Your task to perform on an android device: change timer sound Image 0: 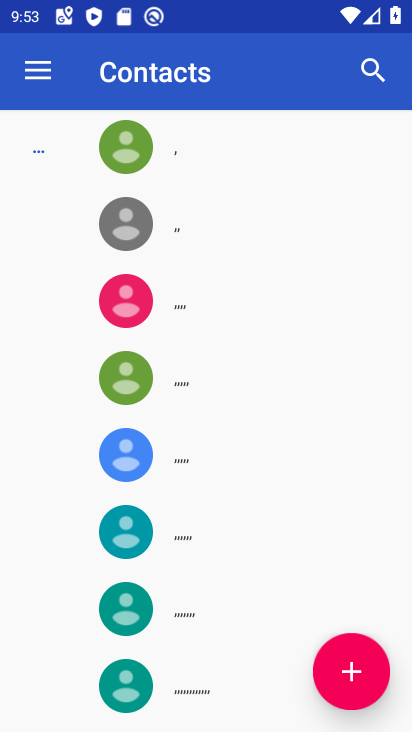
Step 0: press home button
Your task to perform on an android device: change timer sound Image 1: 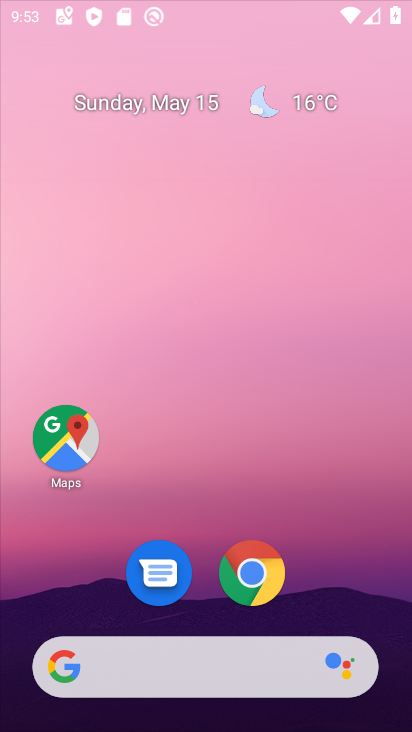
Step 1: drag from (314, 540) to (301, 44)
Your task to perform on an android device: change timer sound Image 2: 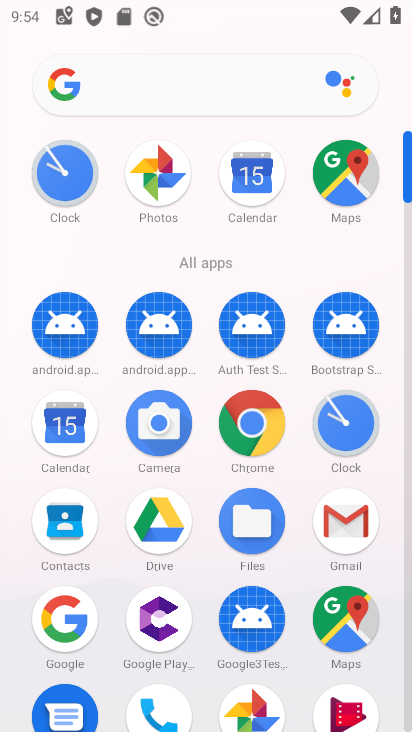
Step 2: click (340, 410)
Your task to perform on an android device: change timer sound Image 3: 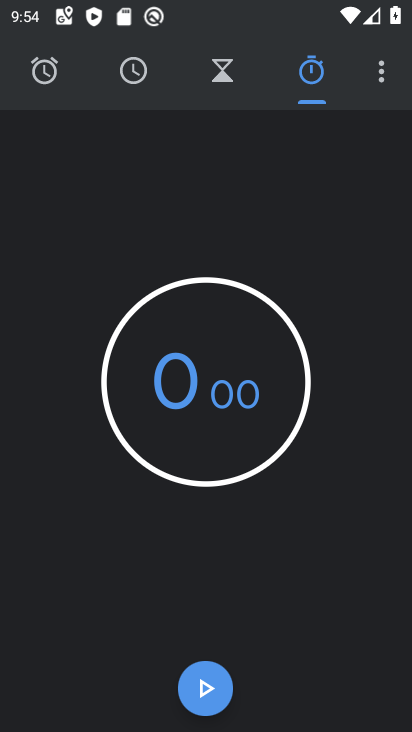
Step 3: click (232, 72)
Your task to perform on an android device: change timer sound Image 4: 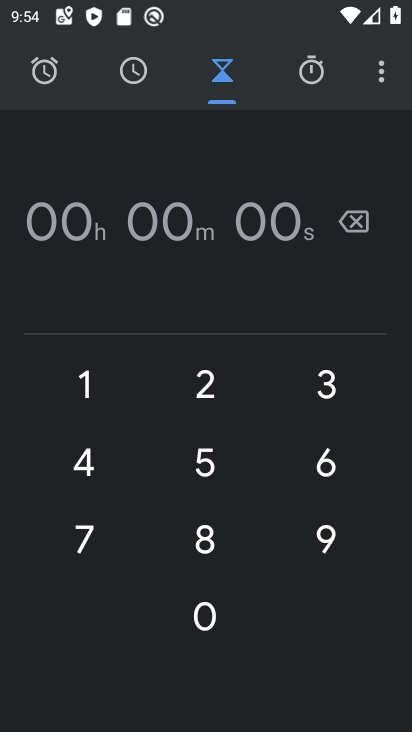
Step 4: click (207, 381)
Your task to perform on an android device: change timer sound Image 5: 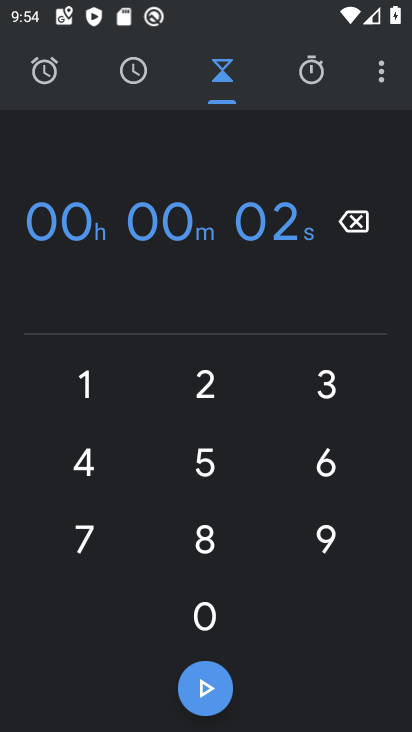
Step 5: click (192, 665)
Your task to perform on an android device: change timer sound Image 6: 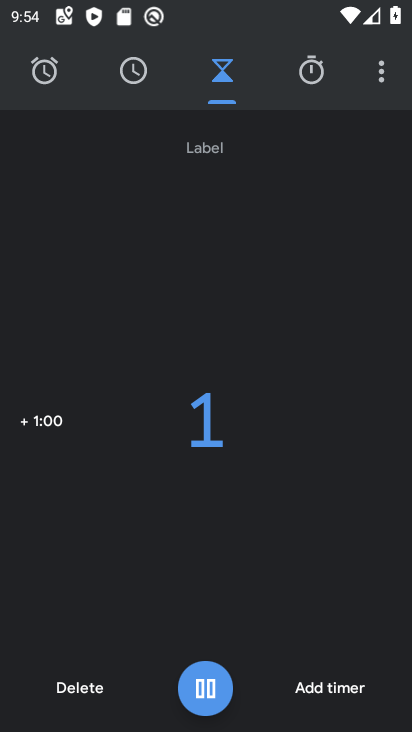
Step 6: task complete